Your task to perform on an android device: turn on priority inbox in the gmail app Image 0: 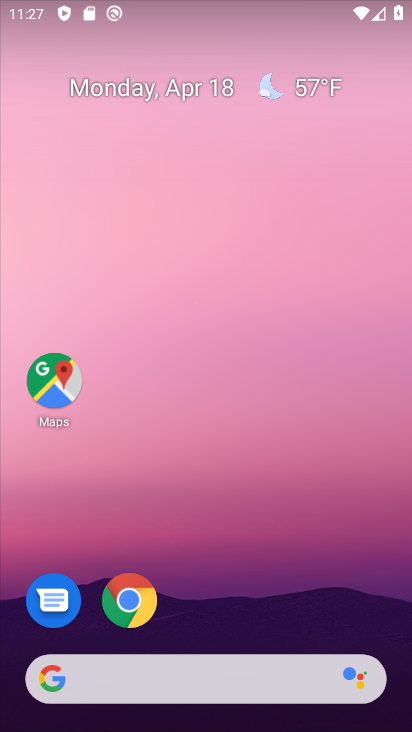
Step 0: drag from (267, 603) to (352, 29)
Your task to perform on an android device: turn on priority inbox in the gmail app Image 1: 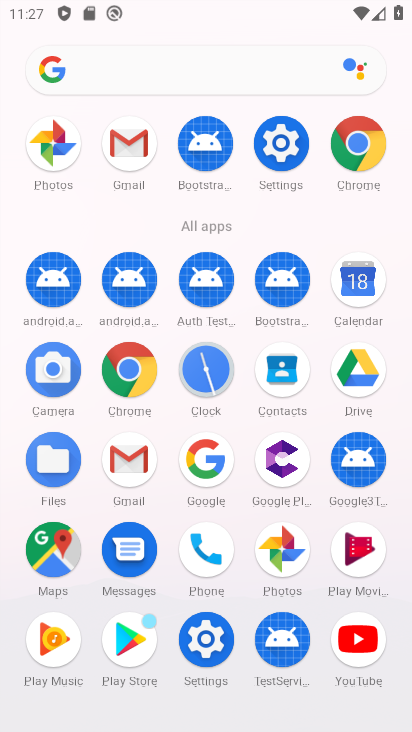
Step 1: click (129, 140)
Your task to perform on an android device: turn on priority inbox in the gmail app Image 2: 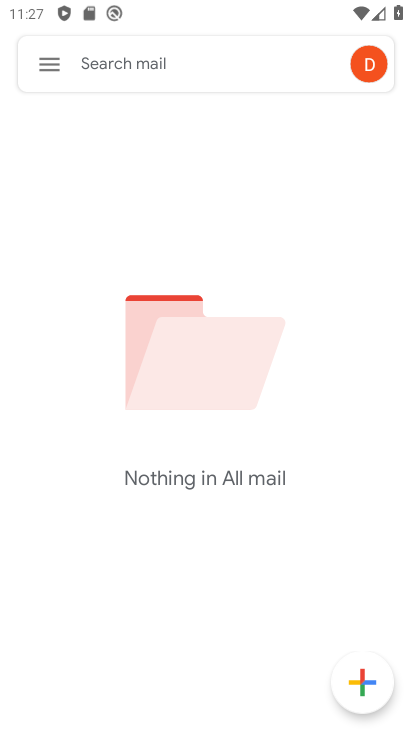
Step 2: click (54, 61)
Your task to perform on an android device: turn on priority inbox in the gmail app Image 3: 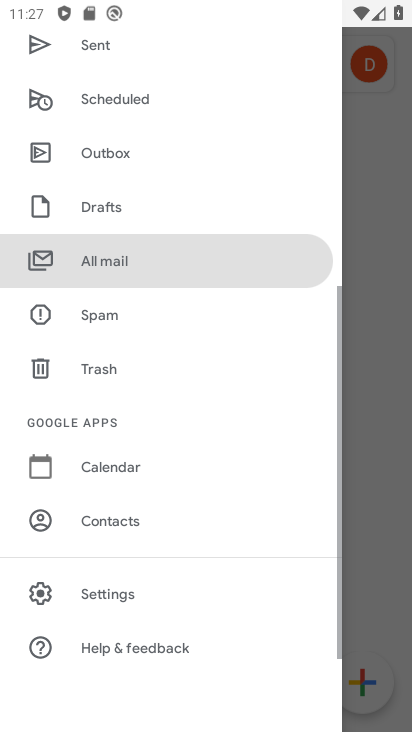
Step 3: click (117, 593)
Your task to perform on an android device: turn on priority inbox in the gmail app Image 4: 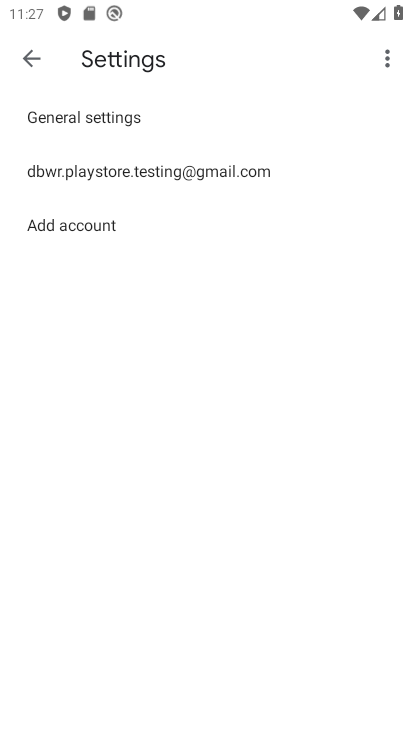
Step 4: click (137, 175)
Your task to perform on an android device: turn on priority inbox in the gmail app Image 5: 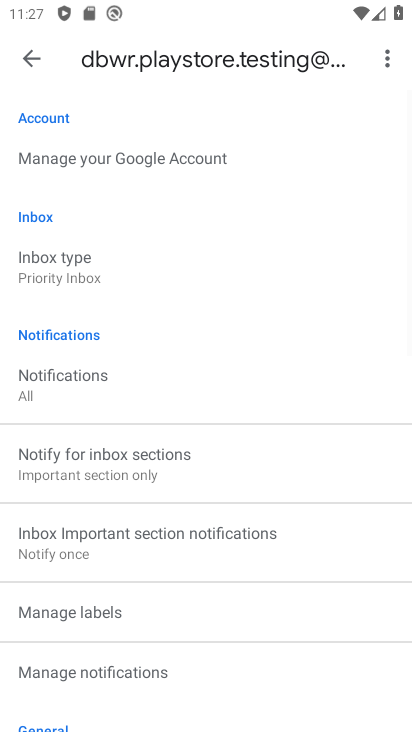
Step 5: click (90, 250)
Your task to perform on an android device: turn on priority inbox in the gmail app Image 6: 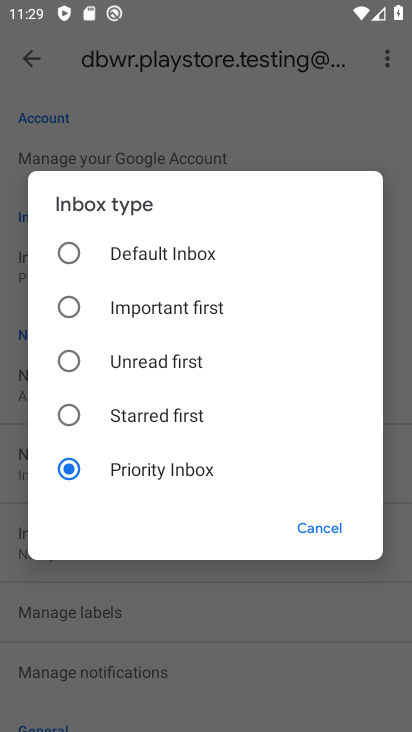
Step 6: task complete